Your task to perform on an android device: toggle priority inbox in the gmail app Image 0: 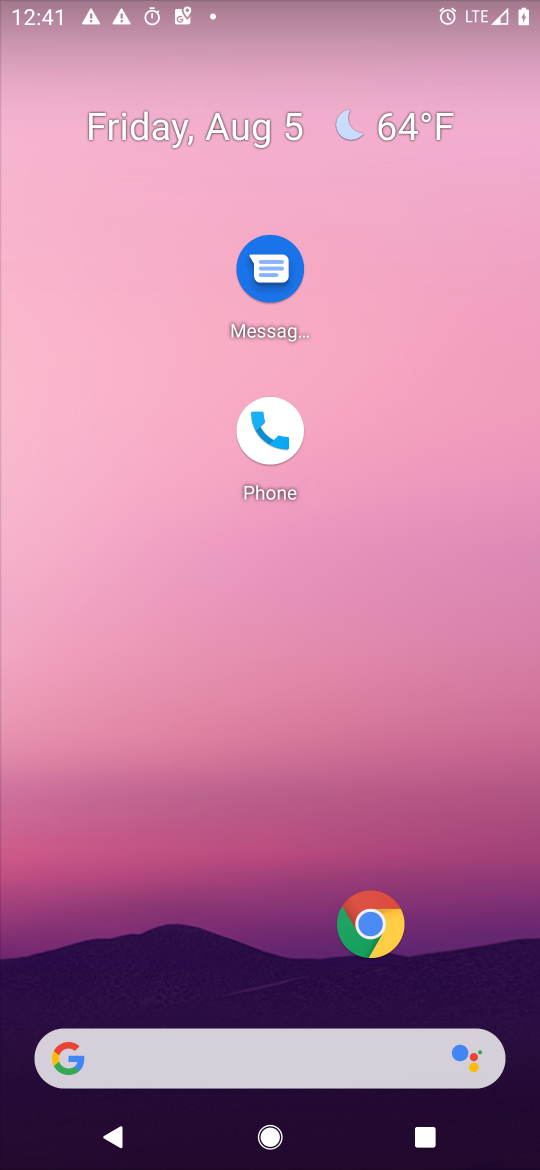
Step 0: drag from (232, 995) to (306, 279)
Your task to perform on an android device: toggle priority inbox in the gmail app Image 1: 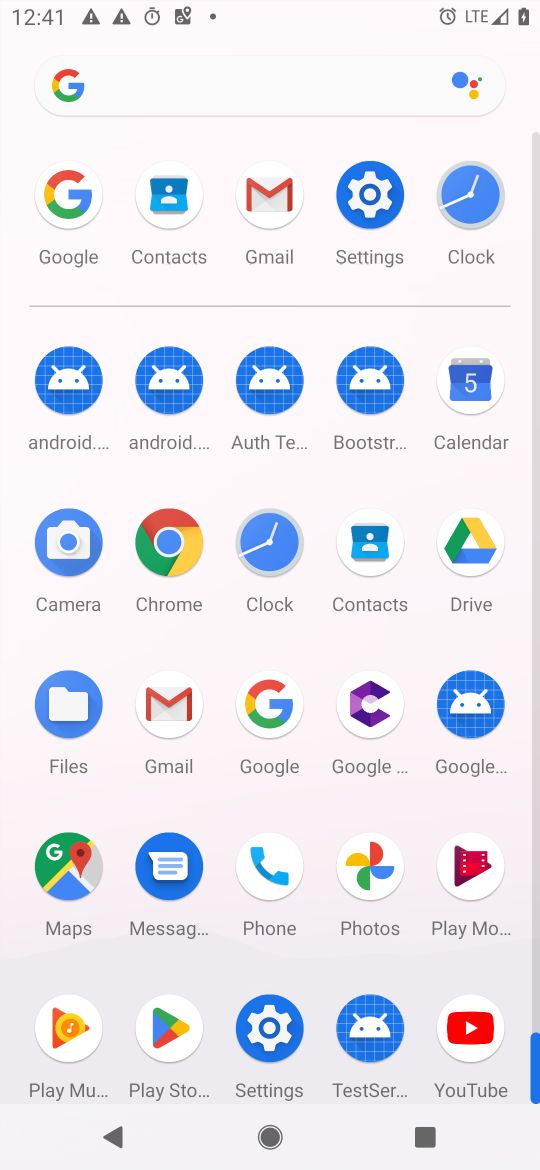
Step 1: click (162, 701)
Your task to perform on an android device: toggle priority inbox in the gmail app Image 2: 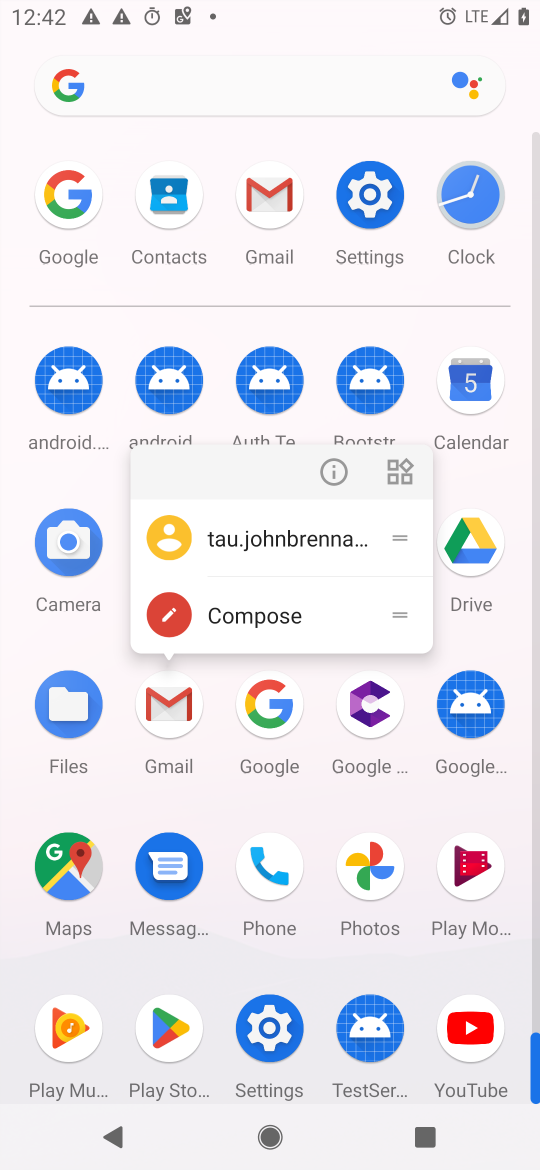
Step 2: click (313, 460)
Your task to perform on an android device: toggle priority inbox in the gmail app Image 3: 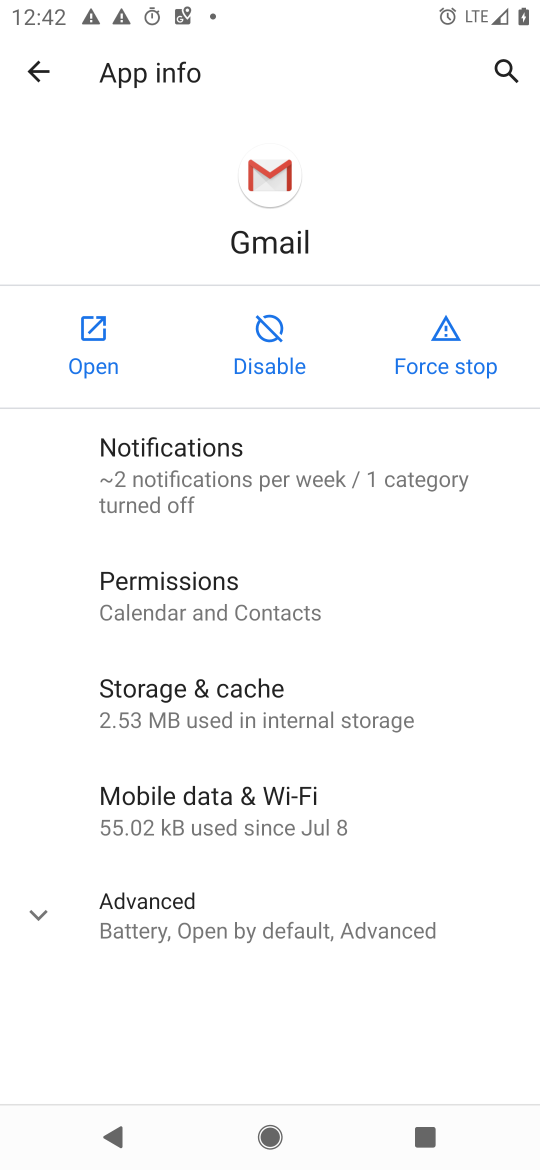
Step 3: click (91, 348)
Your task to perform on an android device: toggle priority inbox in the gmail app Image 4: 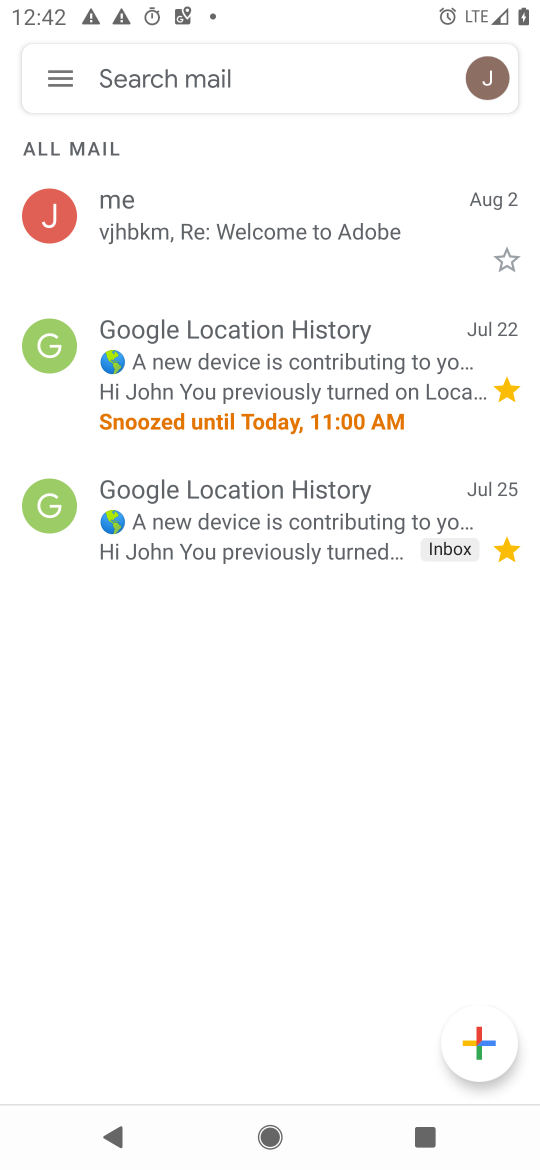
Step 4: click (73, 93)
Your task to perform on an android device: toggle priority inbox in the gmail app Image 5: 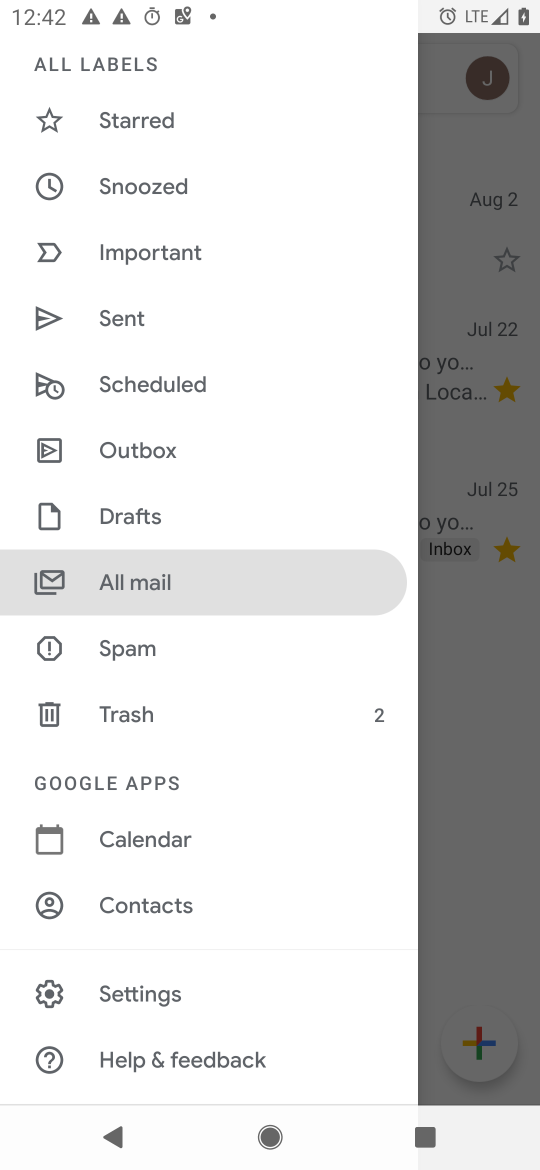
Step 5: drag from (243, 836) to (239, 612)
Your task to perform on an android device: toggle priority inbox in the gmail app Image 6: 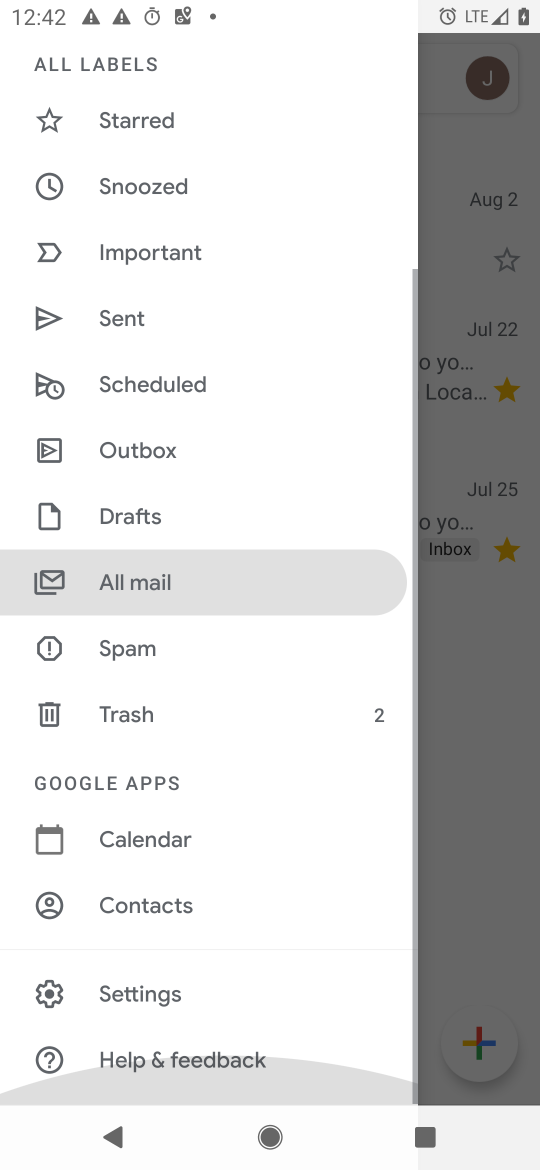
Step 6: drag from (188, 468) to (300, 1079)
Your task to perform on an android device: toggle priority inbox in the gmail app Image 7: 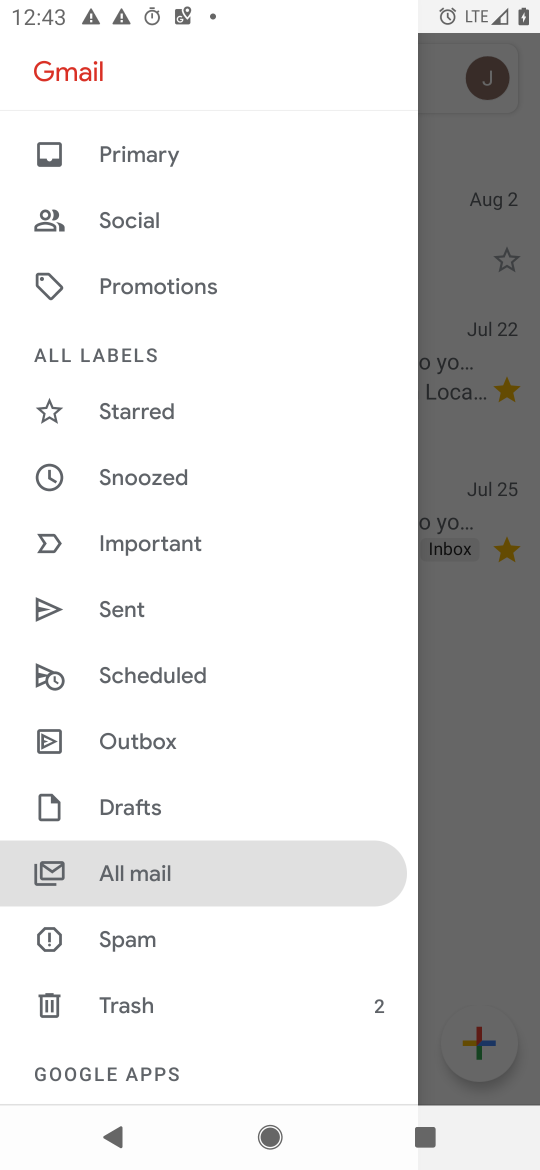
Step 7: drag from (168, 975) to (209, 207)
Your task to perform on an android device: toggle priority inbox in the gmail app Image 8: 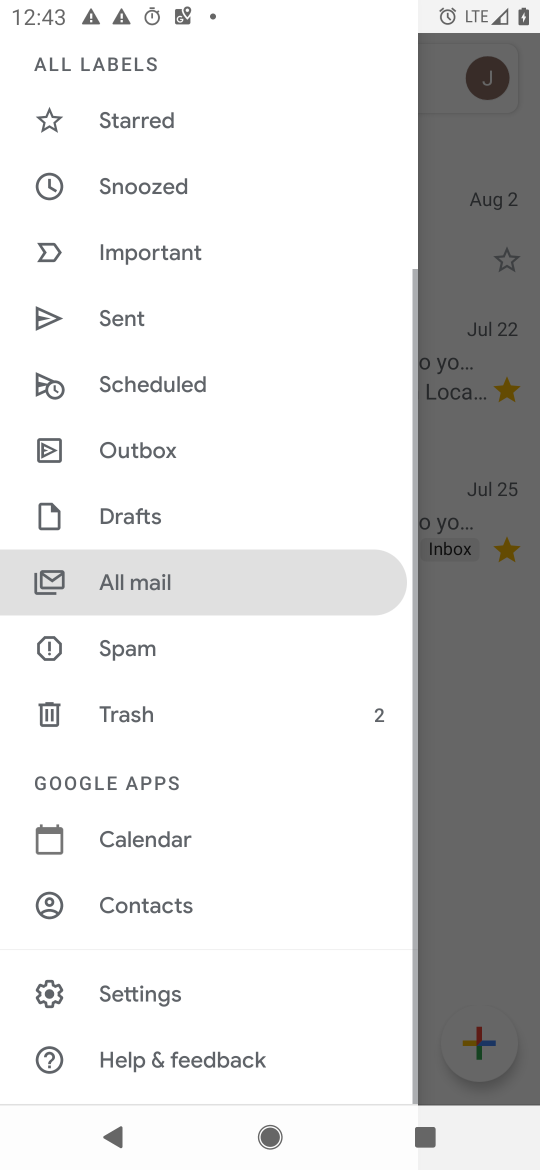
Step 8: click (135, 989)
Your task to perform on an android device: toggle priority inbox in the gmail app Image 9: 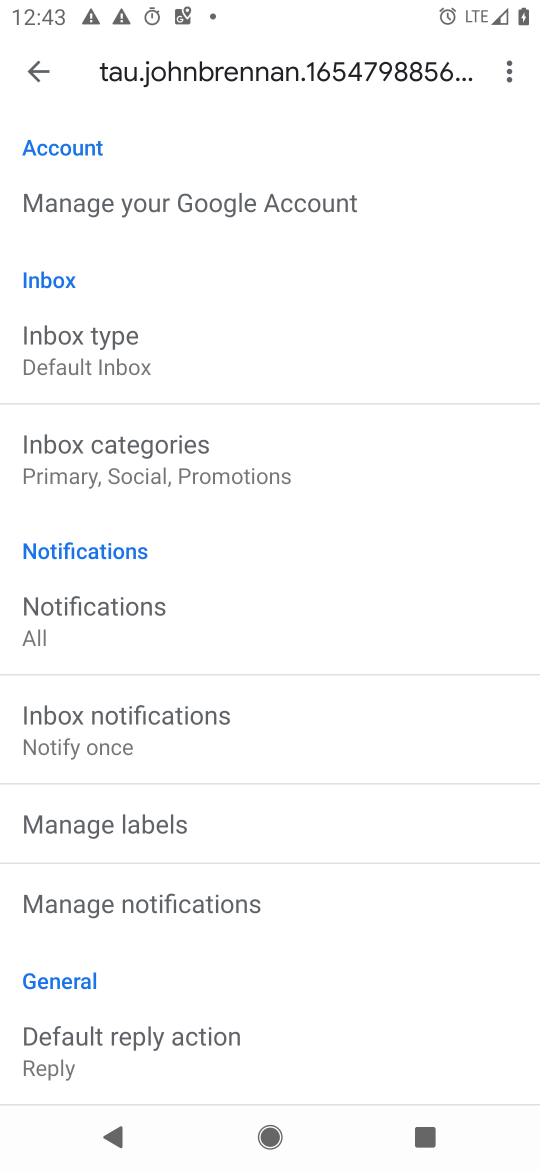
Step 9: click (138, 369)
Your task to perform on an android device: toggle priority inbox in the gmail app Image 10: 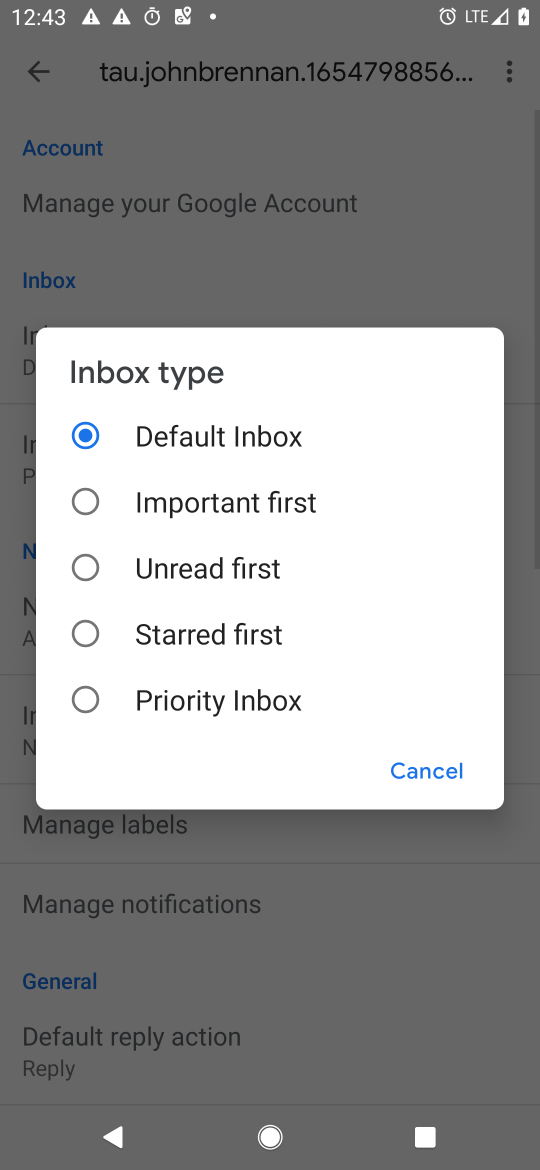
Step 10: click (148, 695)
Your task to perform on an android device: toggle priority inbox in the gmail app Image 11: 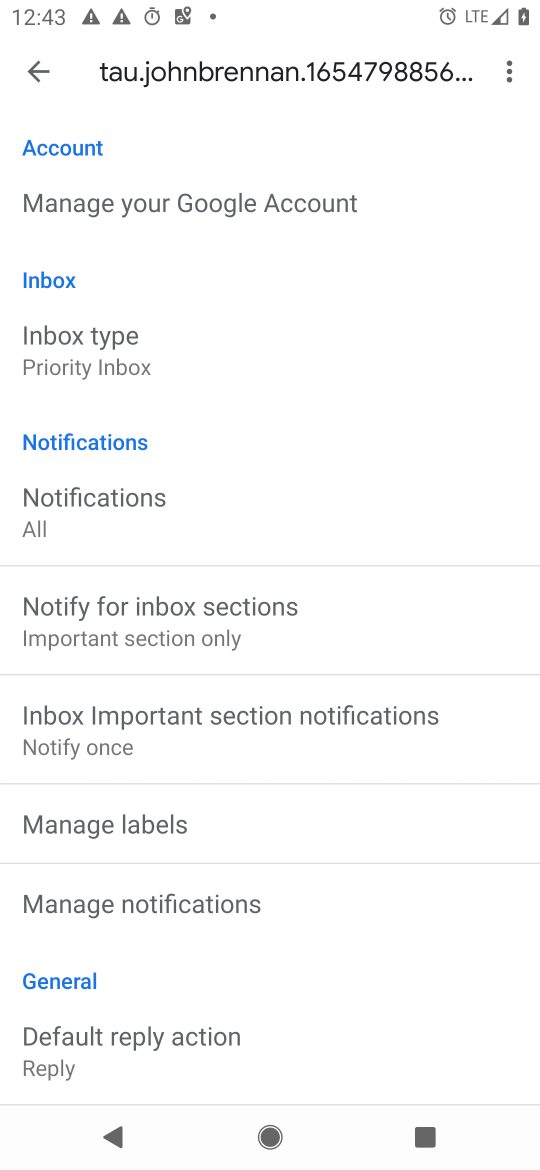
Step 11: task complete